Your task to perform on an android device: add a label to a message in the gmail app Image 0: 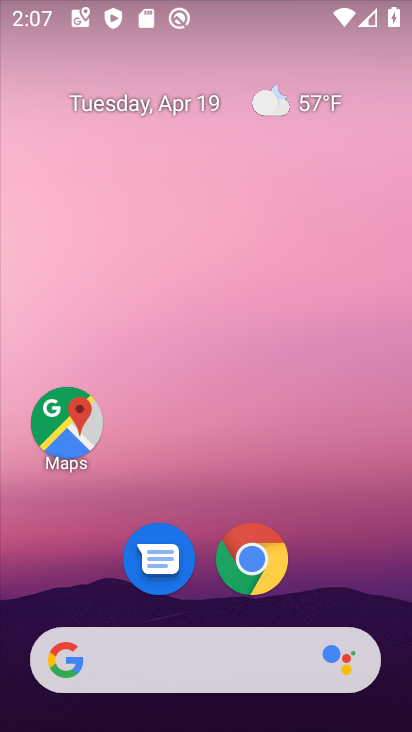
Step 0: drag from (206, 600) to (271, 58)
Your task to perform on an android device: add a label to a message in the gmail app Image 1: 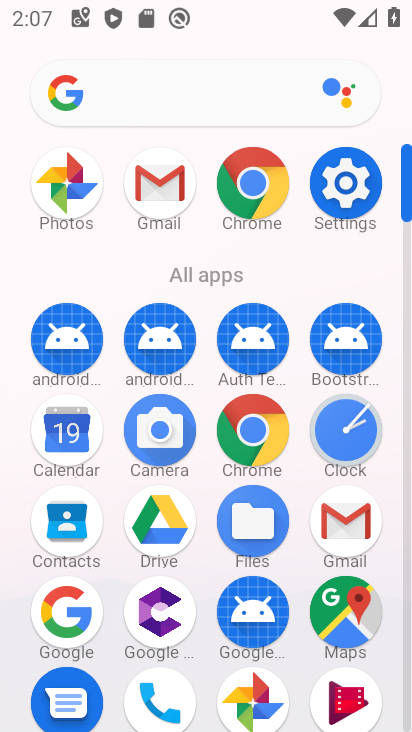
Step 1: click (156, 173)
Your task to perform on an android device: add a label to a message in the gmail app Image 2: 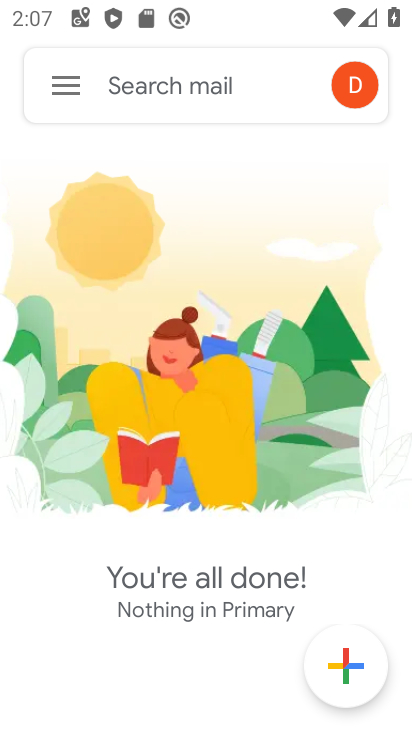
Step 2: click (61, 88)
Your task to perform on an android device: add a label to a message in the gmail app Image 3: 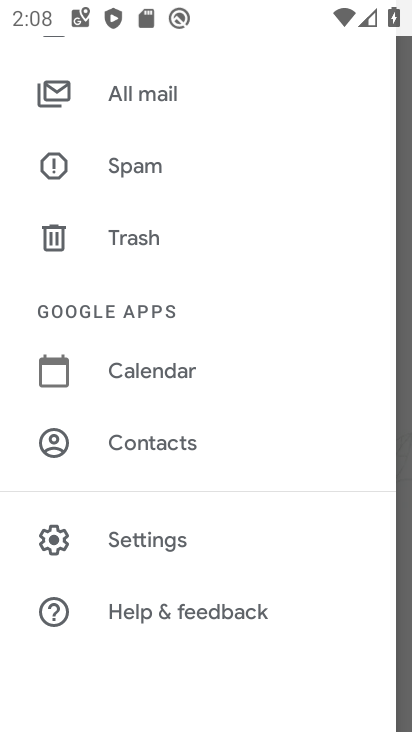
Step 3: click (190, 88)
Your task to perform on an android device: add a label to a message in the gmail app Image 4: 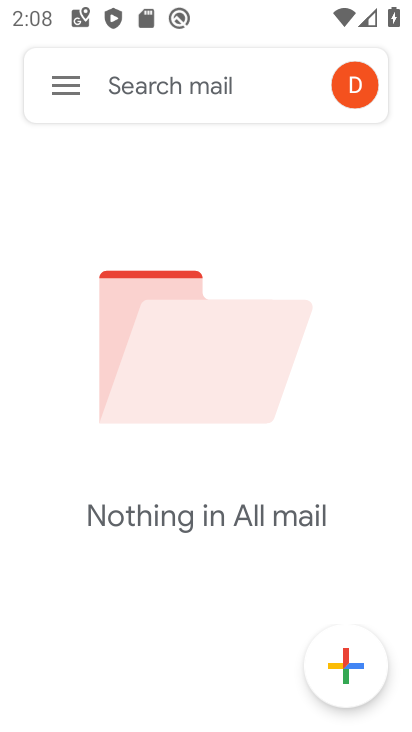
Step 4: task complete